Your task to perform on an android device: open chrome privacy settings Image 0: 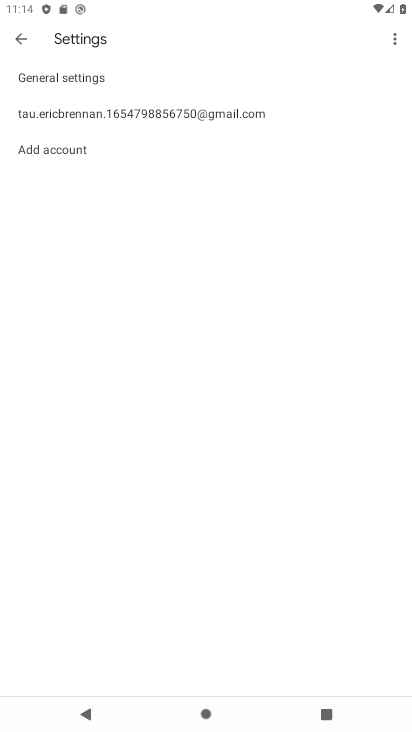
Step 0: press home button
Your task to perform on an android device: open chrome privacy settings Image 1: 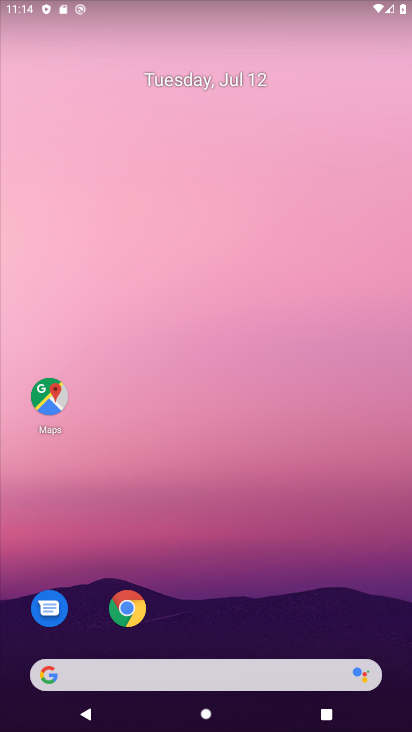
Step 1: click (128, 601)
Your task to perform on an android device: open chrome privacy settings Image 2: 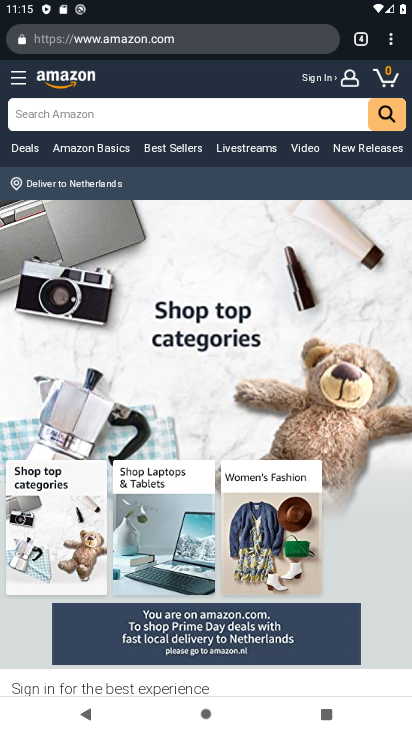
Step 2: click (381, 42)
Your task to perform on an android device: open chrome privacy settings Image 3: 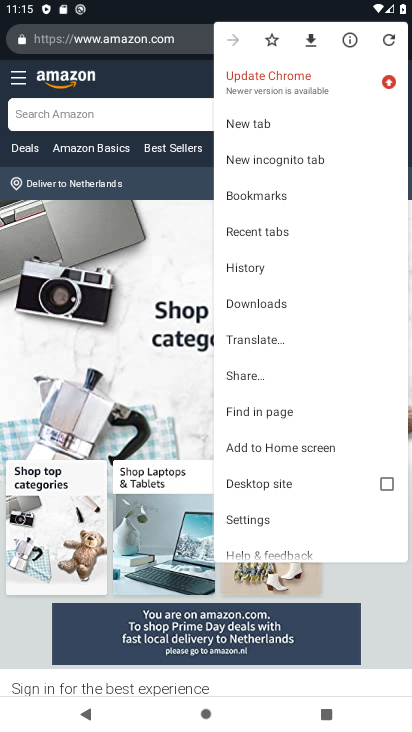
Step 3: drag from (284, 507) to (286, 111)
Your task to perform on an android device: open chrome privacy settings Image 4: 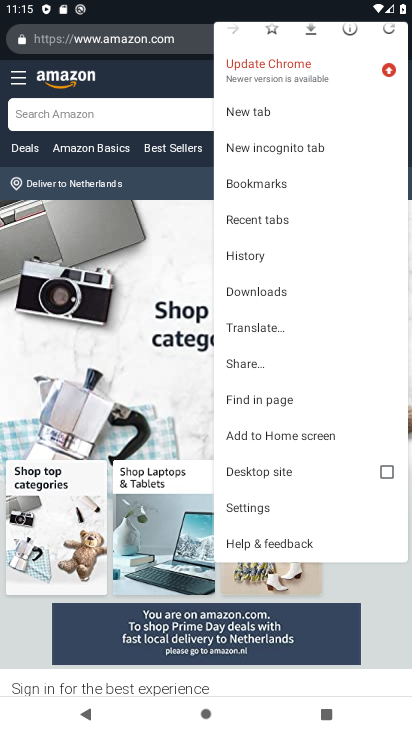
Step 4: click (248, 499)
Your task to perform on an android device: open chrome privacy settings Image 5: 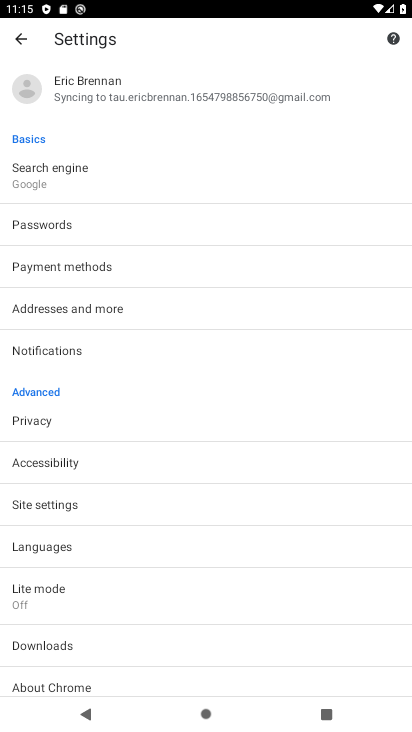
Step 5: click (53, 427)
Your task to perform on an android device: open chrome privacy settings Image 6: 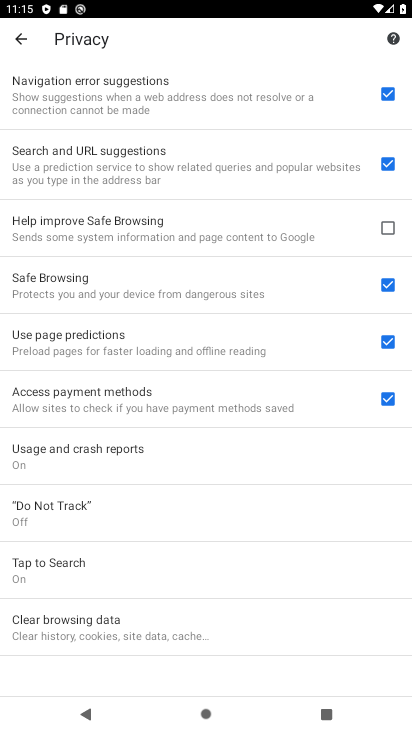
Step 6: task complete